Your task to perform on an android device: check battery use Image 0: 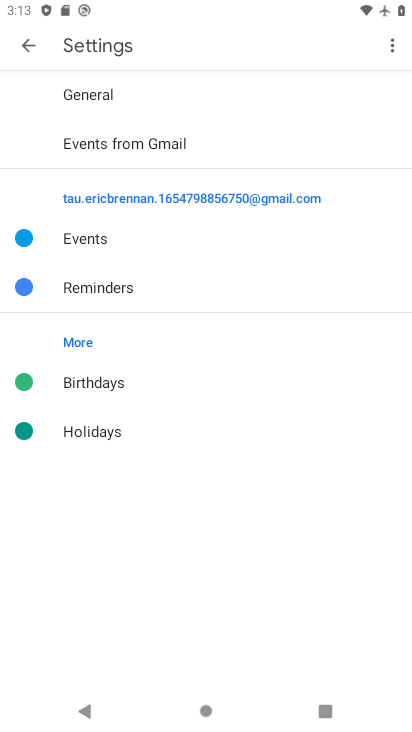
Step 0: press home button
Your task to perform on an android device: check battery use Image 1: 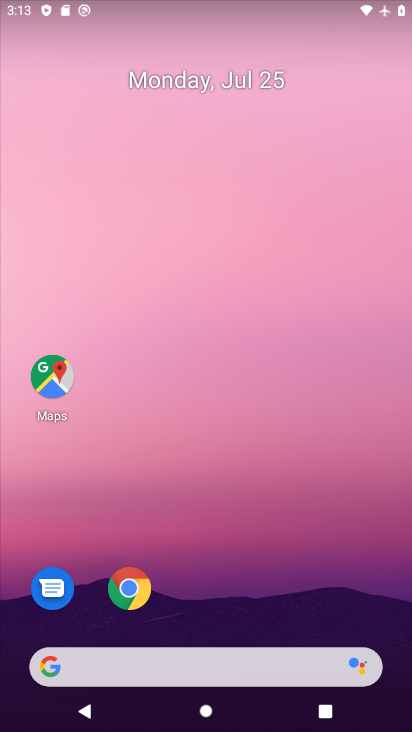
Step 1: drag from (226, 720) to (240, 98)
Your task to perform on an android device: check battery use Image 2: 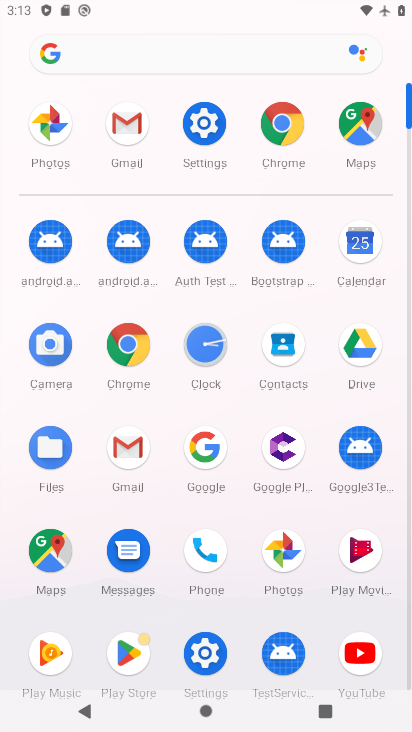
Step 2: click (206, 113)
Your task to perform on an android device: check battery use Image 3: 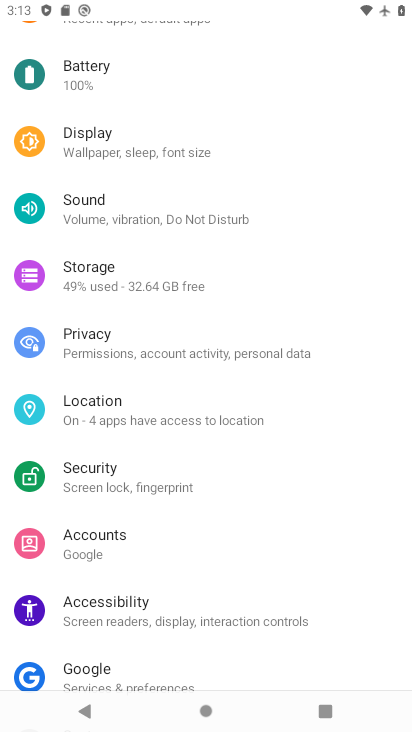
Step 3: drag from (112, 185) to (102, 563)
Your task to perform on an android device: check battery use Image 4: 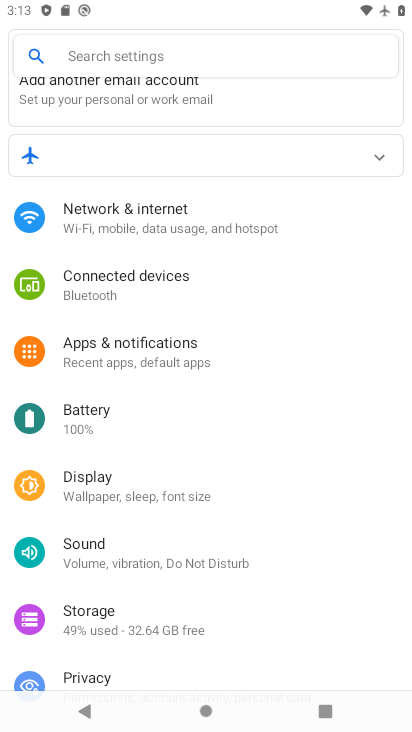
Step 4: click (83, 405)
Your task to perform on an android device: check battery use Image 5: 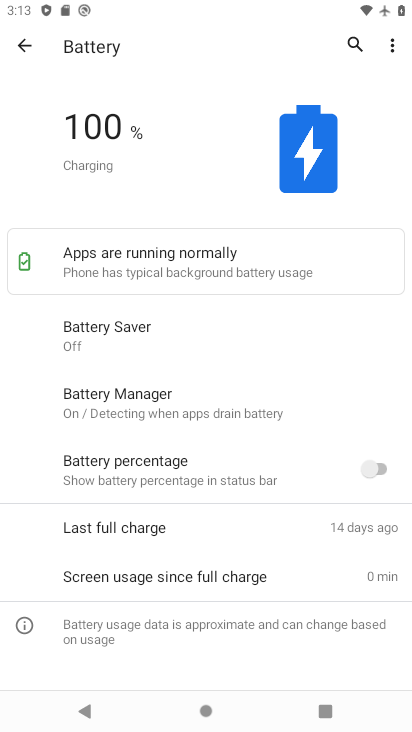
Step 5: click (395, 49)
Your task to perform on an android device: check battery use Image 6: 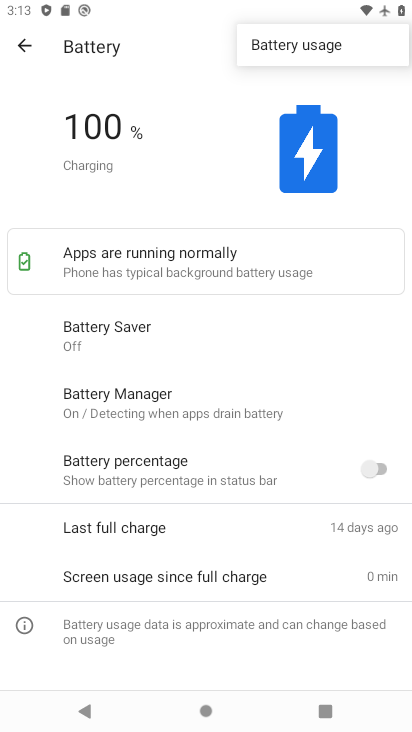
Step 6: click (326, 42)
Your task to perform on an android device: check battery use Image 7: 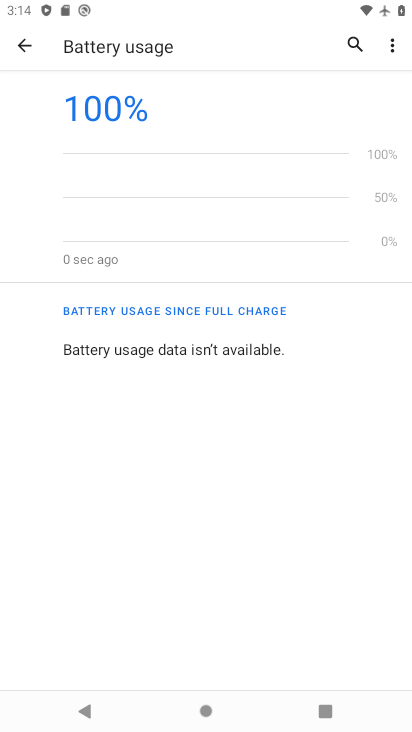
Step 7: task complete